Your task to perform on an android device: Go to calendar. Show me events next week Image 0: 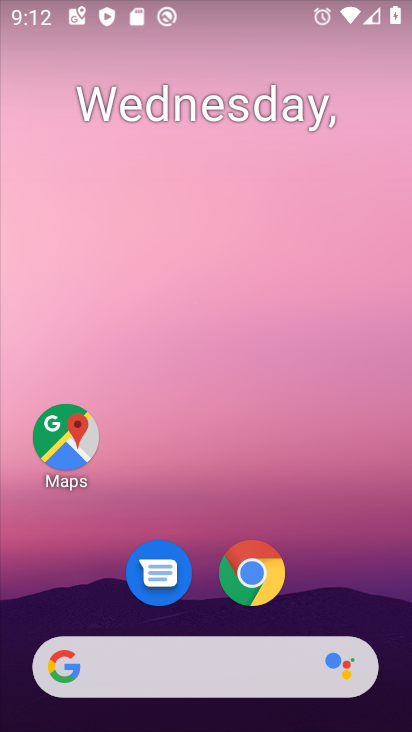
Step 0: drag from (244, 504) to (286, 209)
Your task to perform on an android device: Go to calendar. Show me events next week Image 1: 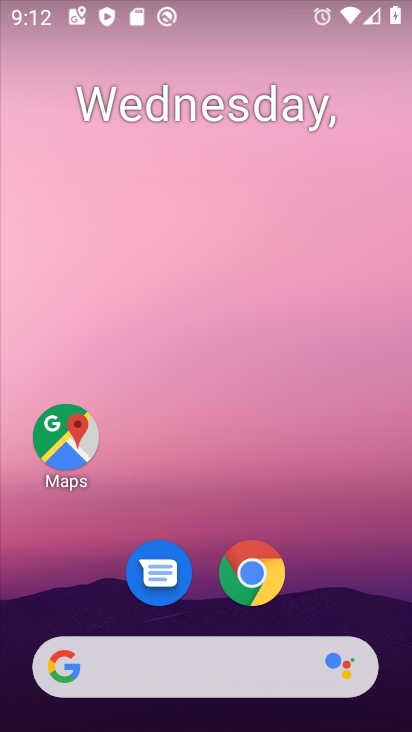
Step 1: drag from (216, 657) to (226, 31)
Your task to perform on an android device: Go to calendar. Show me events next week Image 2: 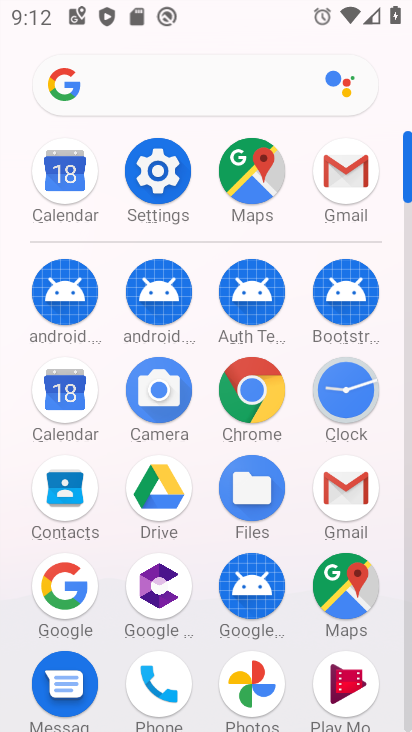
Step 2: click (74, 405)
Your task to perform on an android device: Go to calendar. Show me events next week Image 3: 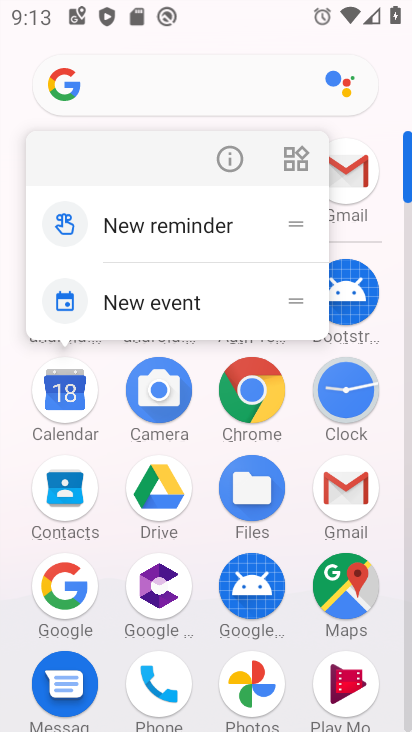
Step 3: click (53, 414)
Your task to perform on an android device: Go to calendar. Show me events next week Image 4: 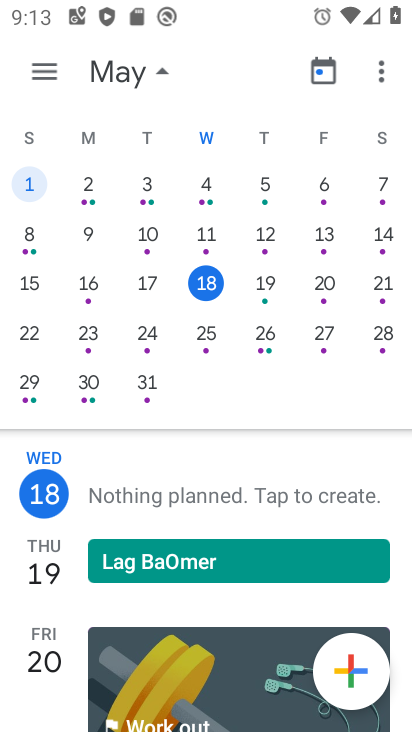
Step 4: click (31, 342)
Your task to perform on an android device: Go to calendar. Show me events next week Image 5: 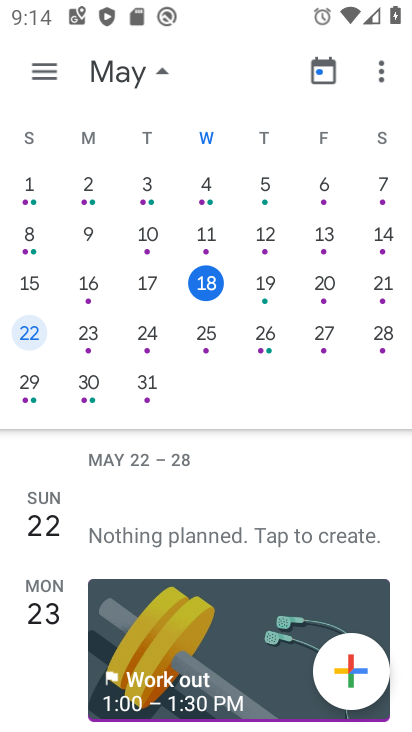
Step 5: task complete